Your task to perform on an android device: create a new album in the google photos Image 0: 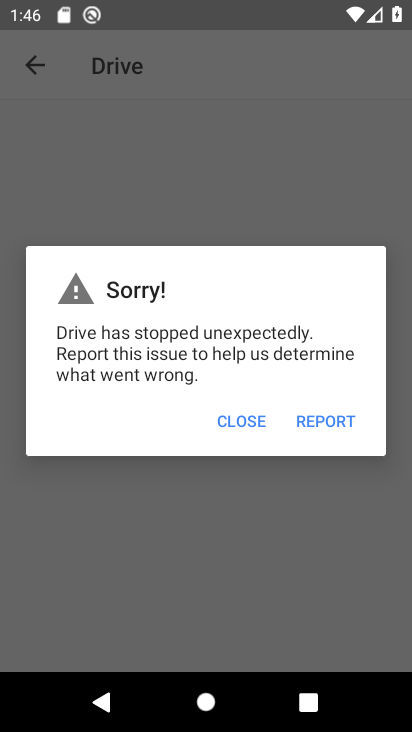
Step 0: click (246, 428)
Your task to perform on an android device: create a new album in the google photos Image 1: 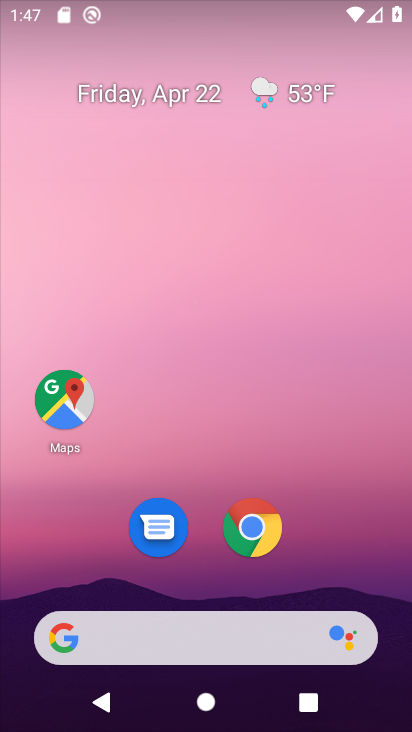
Step 1: drag from (358, 579) to (306, 74)
Your task to perform on an android device: create a new album in the google photos Image 2: 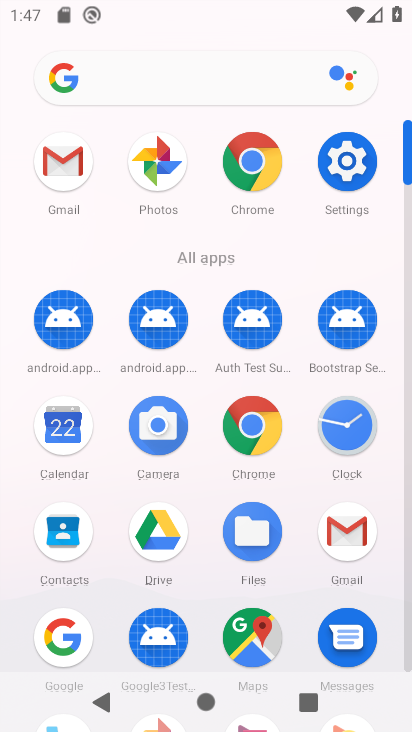
Step 2: click (153, 163)
Your task to perform on an android device: create a new album in the google photos Image 3: 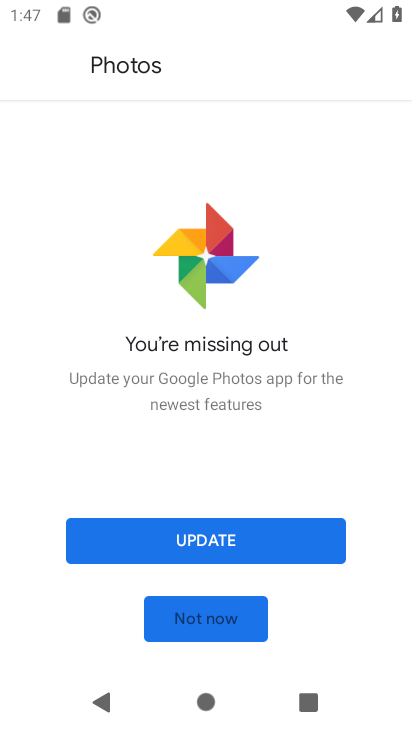
Step 3: click (196, 620)
Your task to perform on an android device: create a new album in the google photos Image 4: 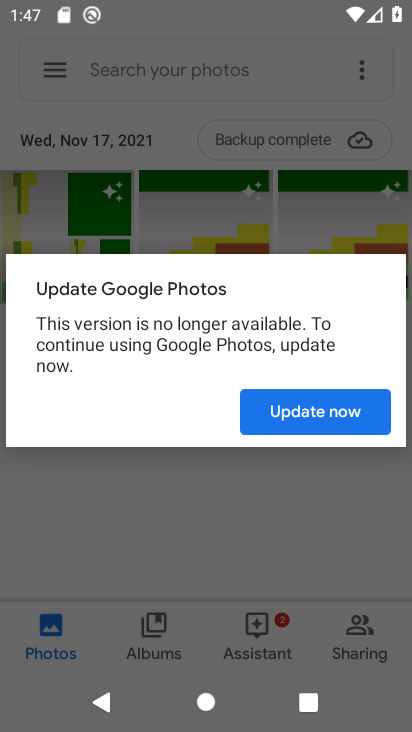
Step 4: click (285, 537)
Your task to perform on an android device: create a new album in the google photos Image 5: 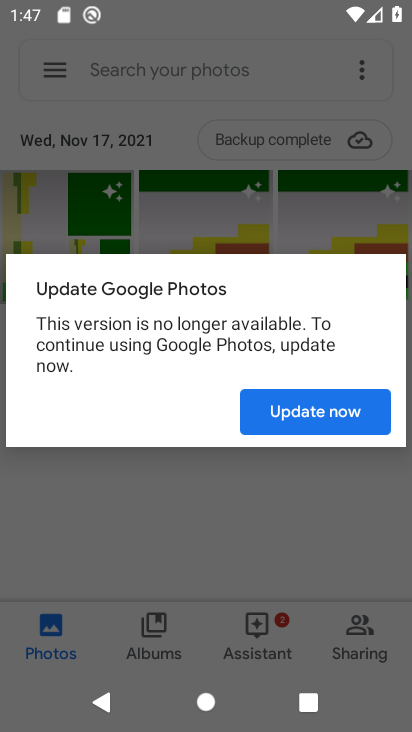
Step 5: press back button
Your task to perform on an android device: create a new album in the google photos Image 6: 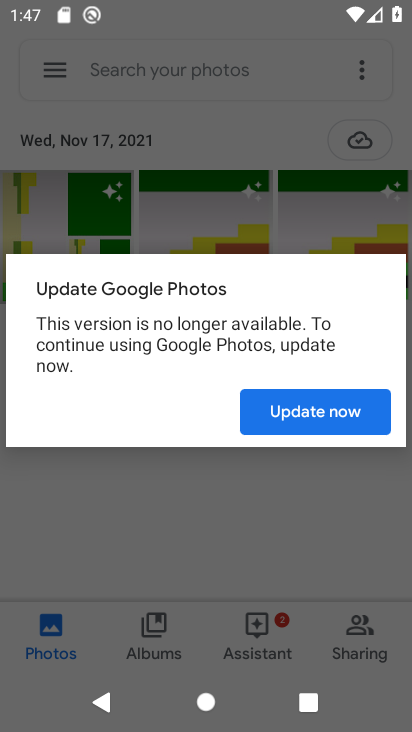
Step 6: click (300, 416)
Your task to perform on an android device: create a new album in the google photos Image 7: 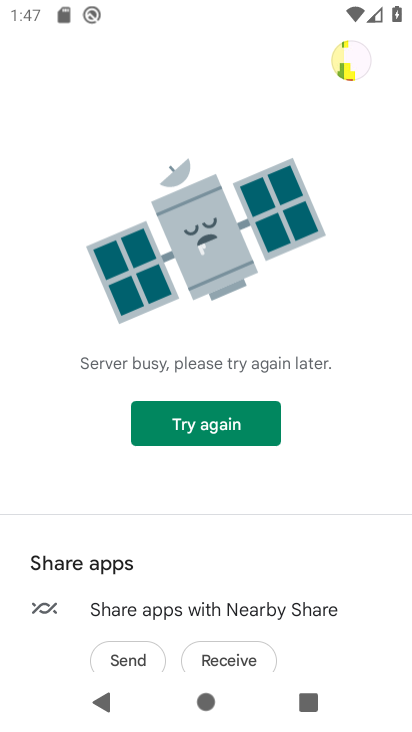
Step 7: press back button
Your task to perform on an android device: create a new album in the google photos Image 8: 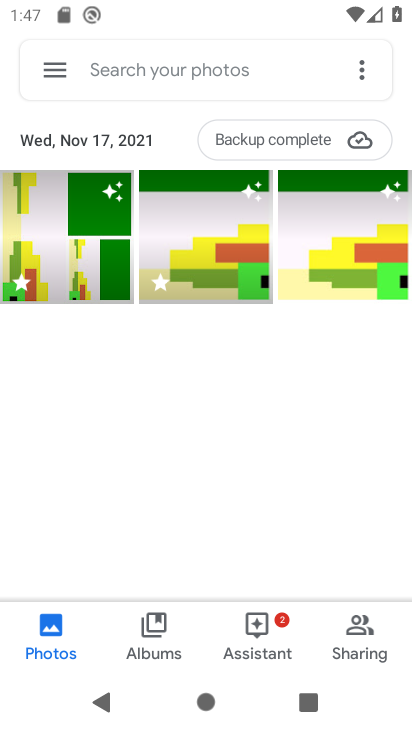
Step 8: click (74, 255)
Your task to perform on an android device: create a new album in the google photos Image 9: 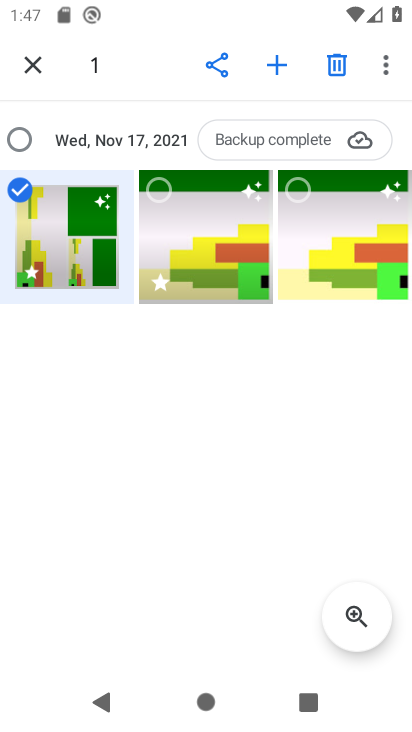
Step 9: click (223, 213)
Your task to perform on an android device: create a new album in the google photos Image 10: 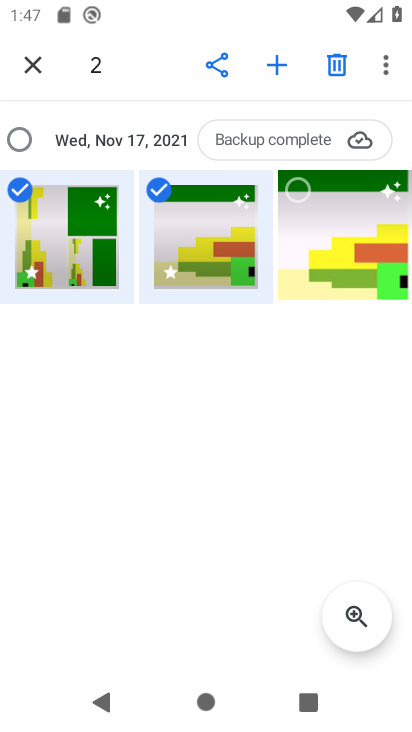
Step 10: click (278, 57)
Your task to perform on an android device: create a new album in the google photos Image 11: 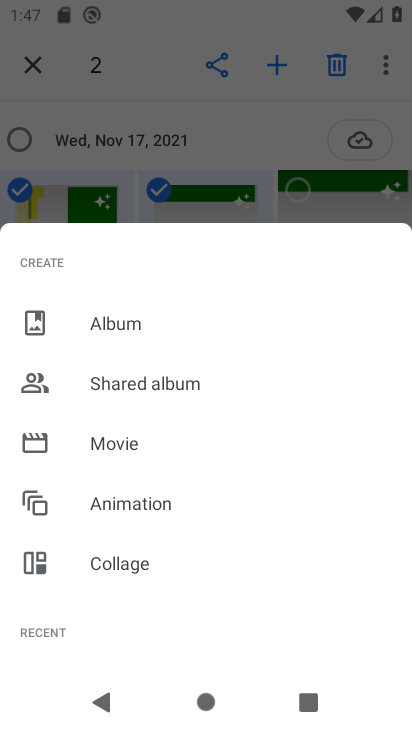
Step 11: click (106, 330)
Your task to perform on an android device: create a new album in the google photos Image 12: 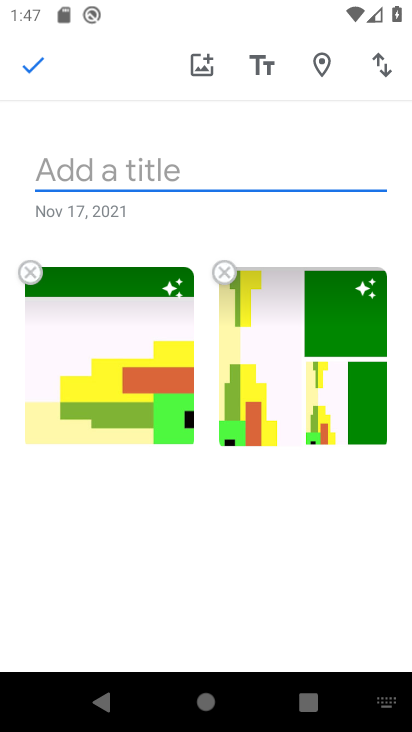
Step 12: type "oll"
Your task to perform on an android device: create a new album in the google photos Image 13: 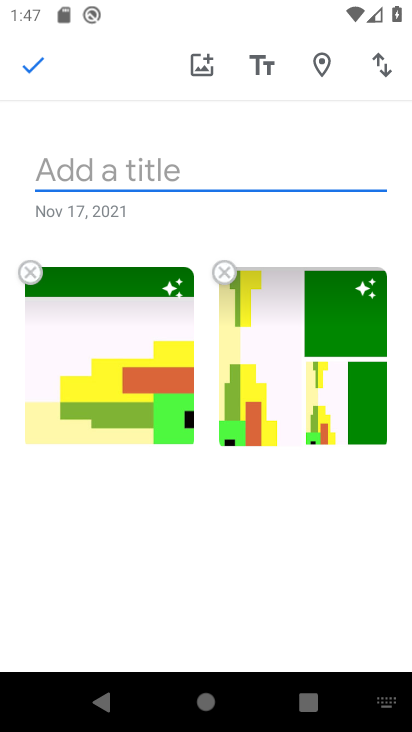
Step 13: click (31, 58)
Your task to perform on an android device: create a new album in the google photos Image 14: 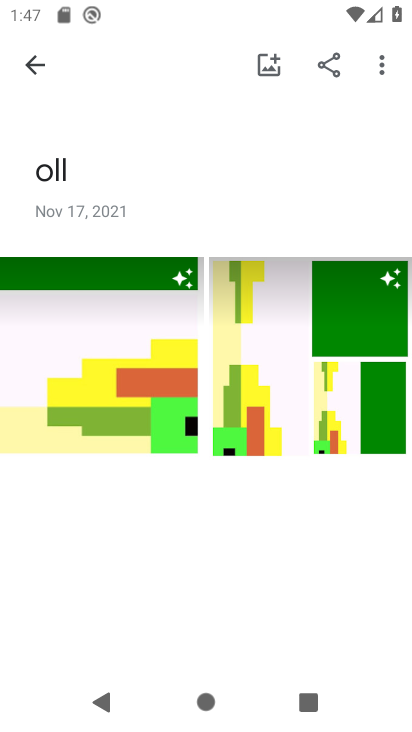
Step 14: task complete